Your task to perform on an android device: check the backup settings in the google photos Image 0: 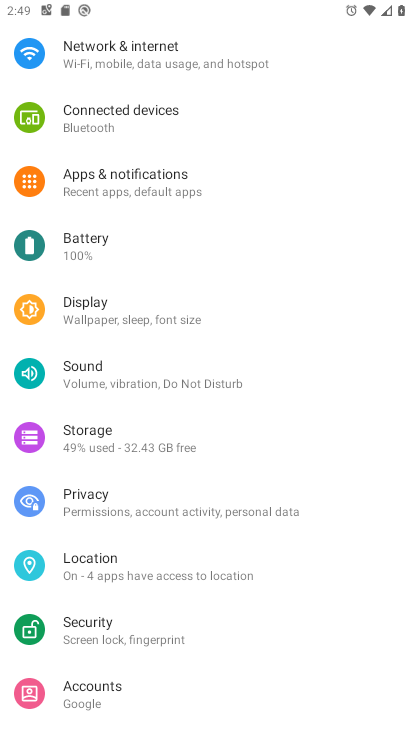
Step 0: press home button
Your task to perform on an android device: check the backup settings in the google photos Image 1: 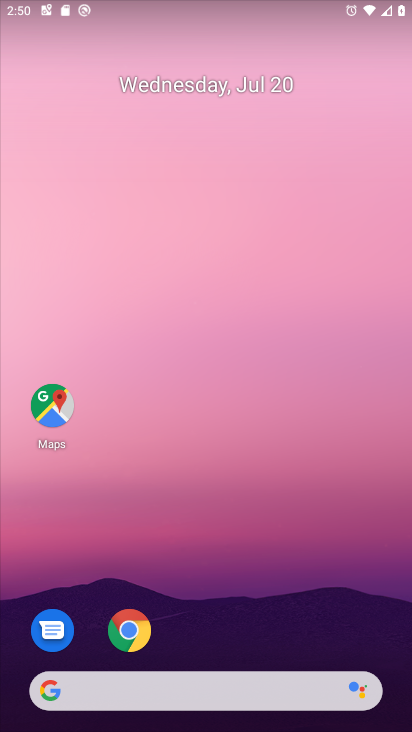
Step 1: drag from (195, 681) to (252, 157)
Your task to perform on an android device: check the backup settings in the google photos Image 2: 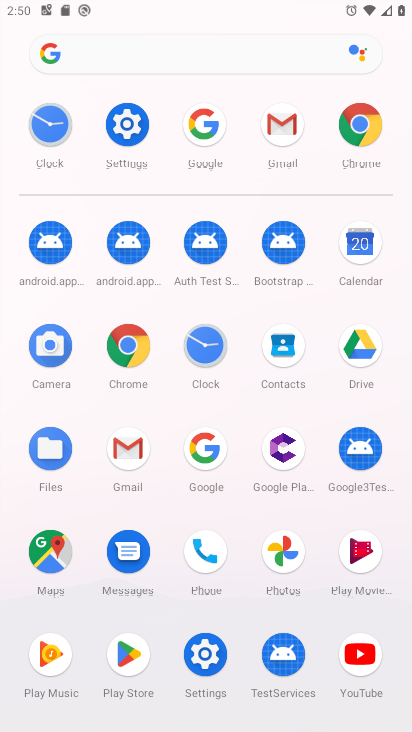
Step 2: click (287, 563)
Your task to perform on an android device: check the backup settings in the google photos Image 3: 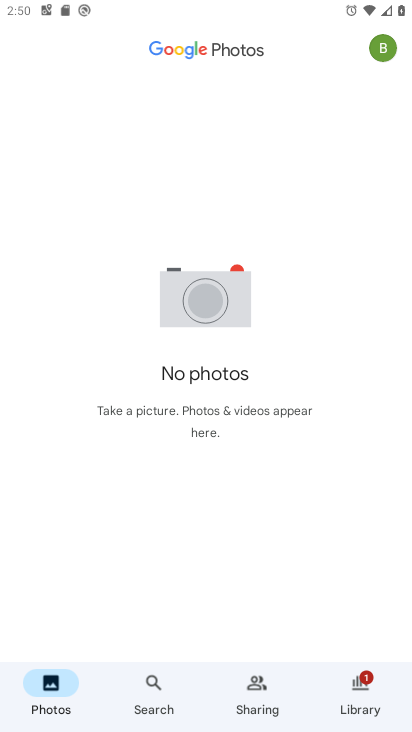
Step 3: click (379, 49)
Your task to perform on an android device: check the backup settings in the google photos Image 4: 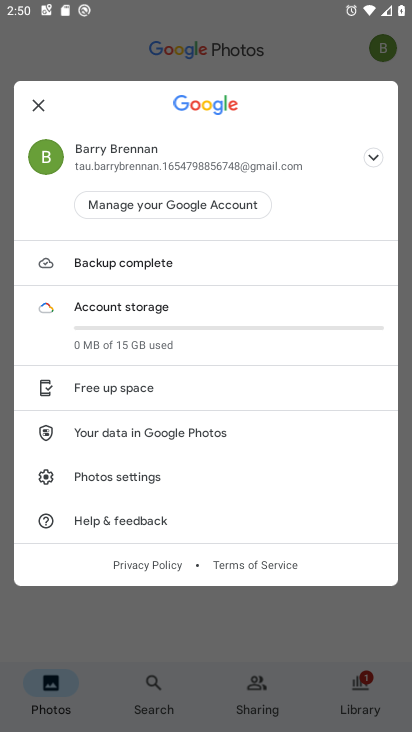
Step 4: click (131, 477)
Your task to perform on an android device: check the backup settings in the google photos Image 5: 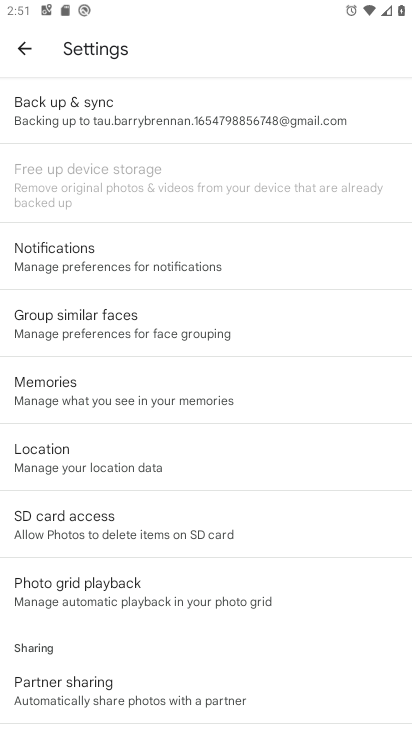
Step 5: click (141, 111)
Your task to perform on an android device: check the backup settings in the google photos Image 6: 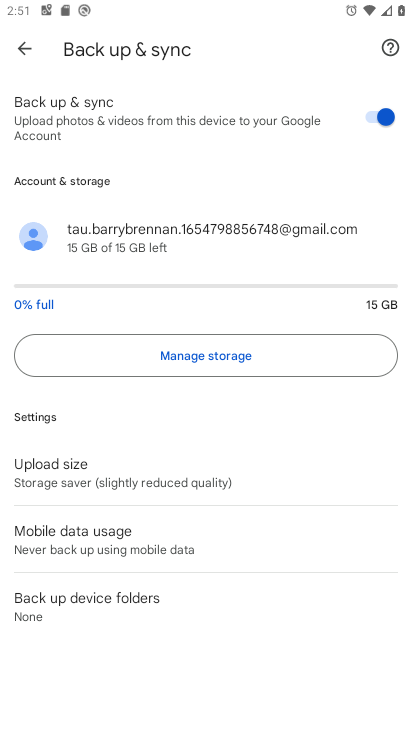
Step 6: task complete